Your task to perform on an android device: Open Wikipedia Image 0: 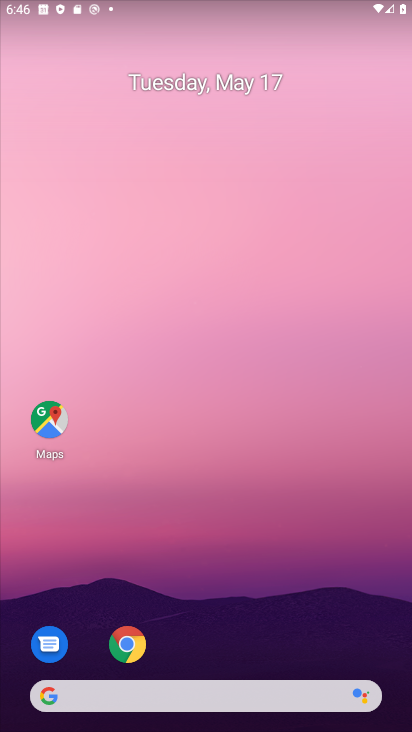
Step 0: drag from (377, 632) to (251, 55)
Your task to perform on an android device: Open Wikipedia Image 1: 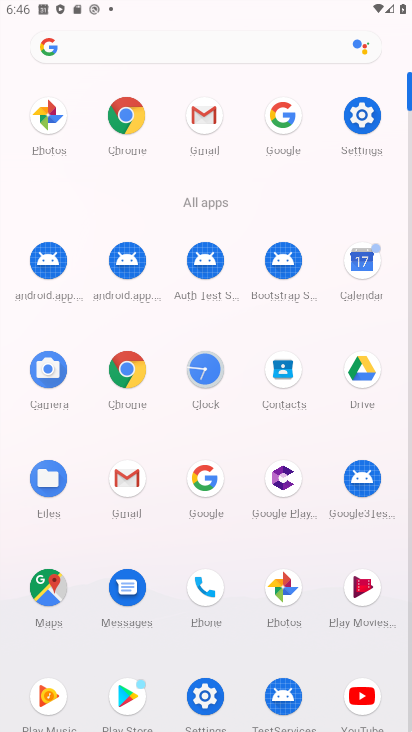
Step 1: click (123, 128)
Your task to perform on an android device: Open Wikipedia Image 2: 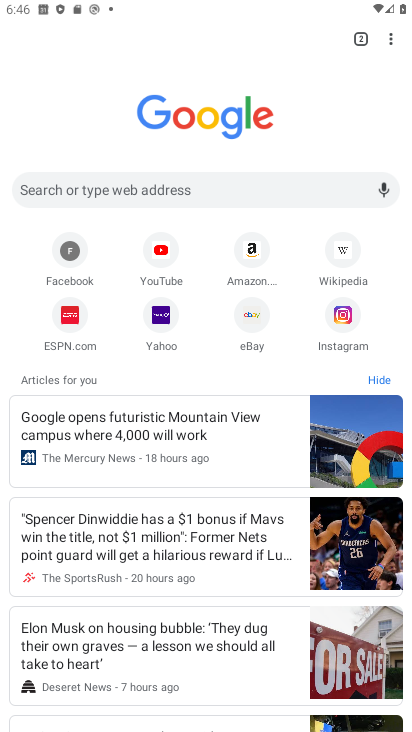
Step 2: click (350, 248)
Your task to perform on an android device: Open Wikipedia Image 3: 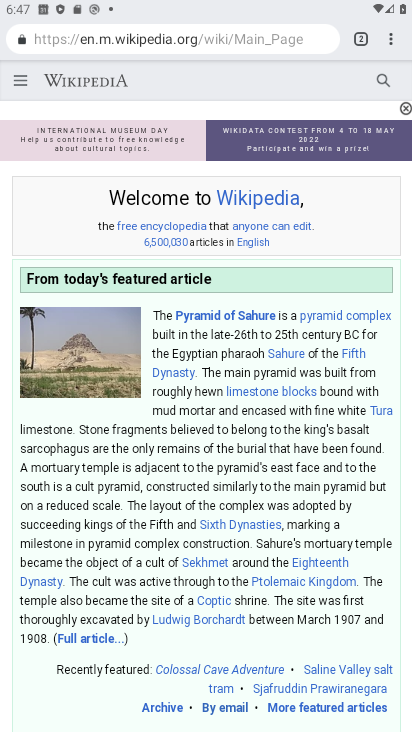
Step 3: task complete